Your task to perform on an android device: turn on priority inbox in the gmail app Image 0: 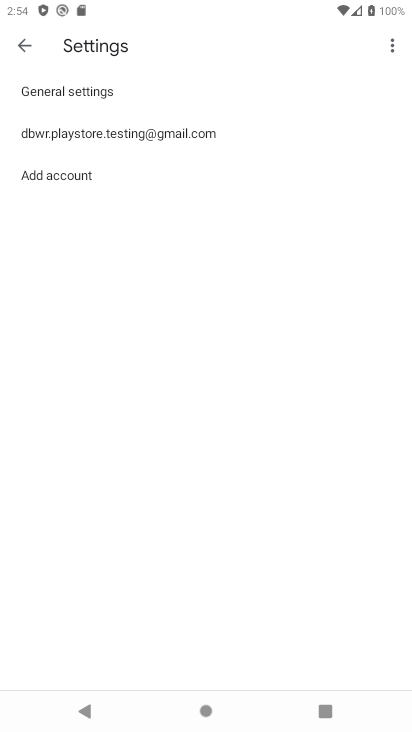
Step 0: click (16, 33)
Your task to perform on an android device: turn on priority inbox in the gmail app Image 1: 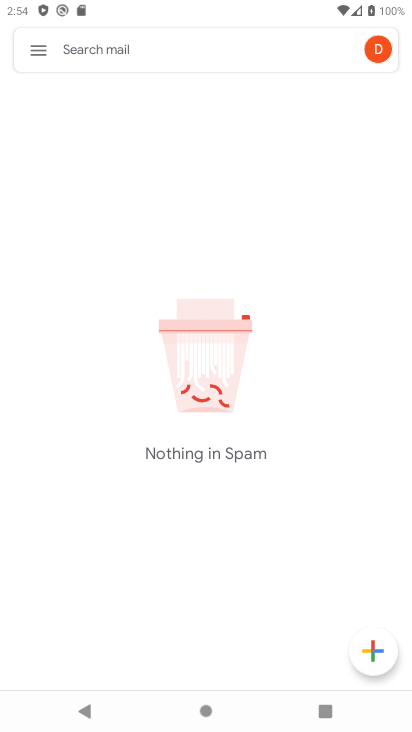
Step 1: press back button
Your task to perform on an android device: turn on priority inbox in the gmail app Image 2: 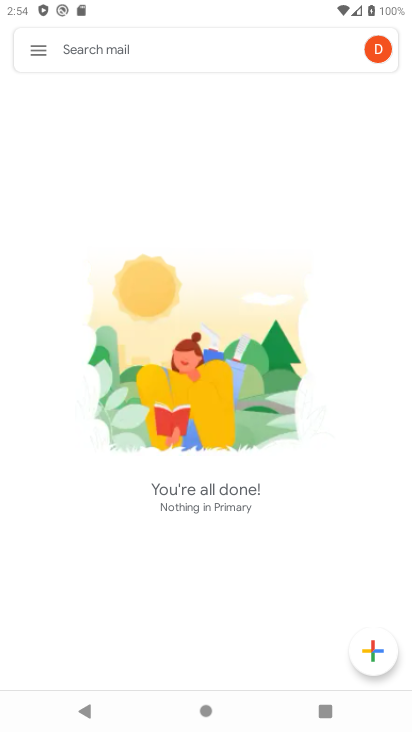
Step 2: press home button
Your task to perform on an android device: turn on priority inbox in the gmail app Image 3: 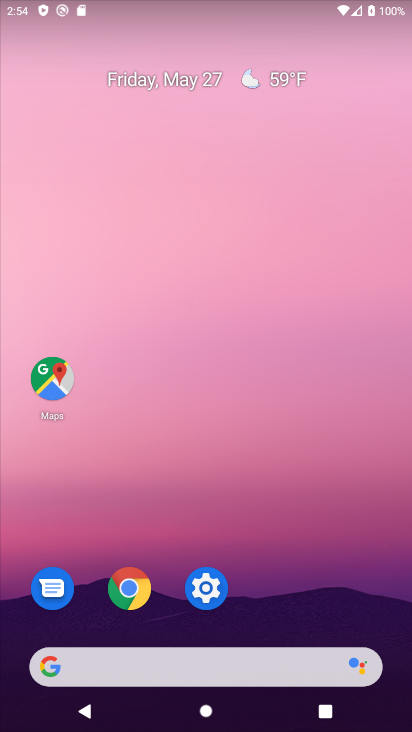
Step 3: drag from (156, 223) to (99, 30)
Your task to perform on an android device: turn on priority inbox in the gmail app Image 4: 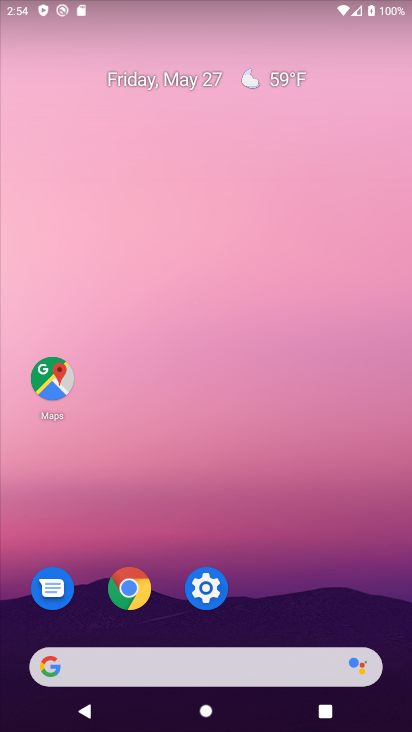
Step 4: drag from (275, 624) to (182, 4)
Your task to perform on an android device: turn on priority inbox in the gmail app Image 5: 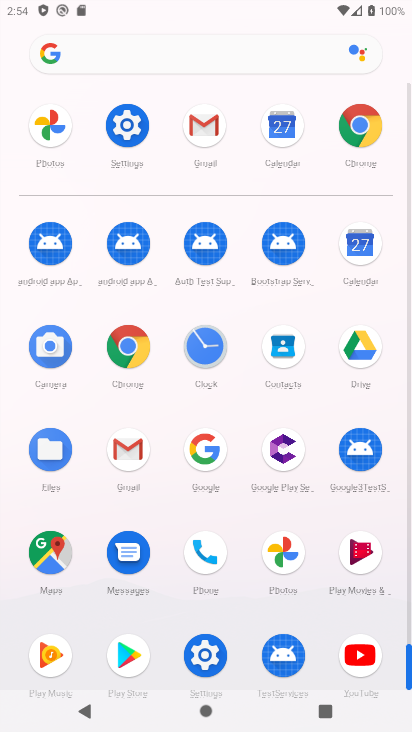
Step 5: drag from (241, 563) to (142, 20)
Your task to perform on an android device: turn on priority inbox in the gmail app Image 6: 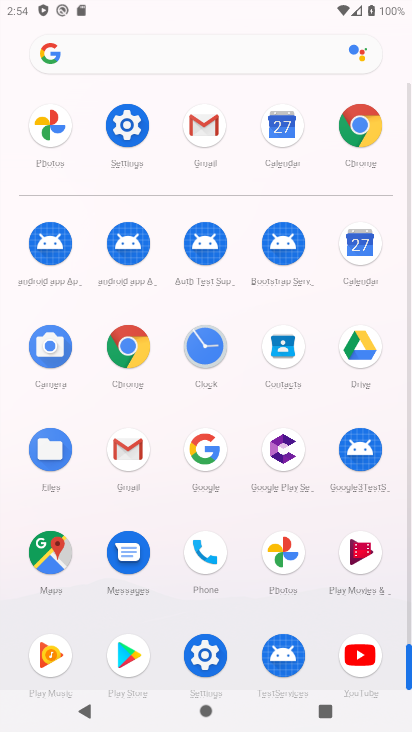
Step 6: click (136, 453)
Your task to perform on an android device: turn on priority inbox in the gmail app Image 7: 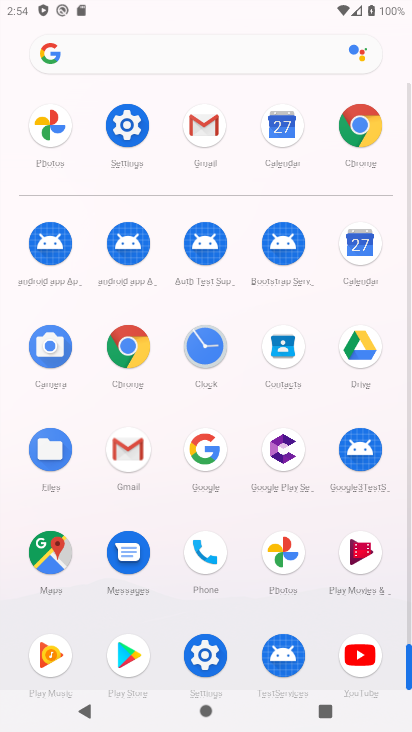
Step 7: click (136, 453)
Your task to perform on an android device: turn on priority inbox in the gmail app Image 8: 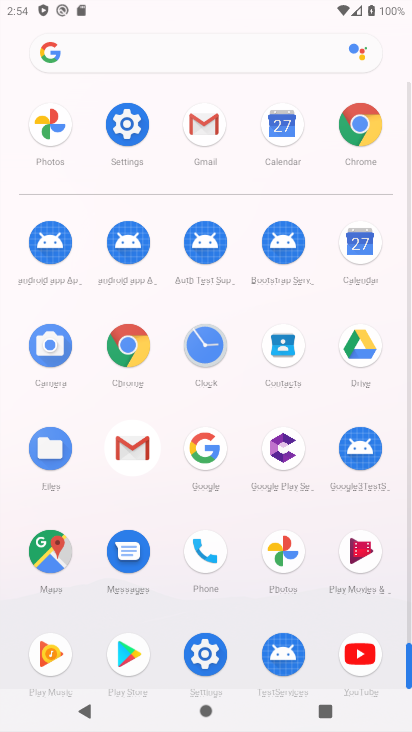
Step 8: click (136, 453)
Your task to perform on an android device: turn on priority inbox in the gmail app Image 9: 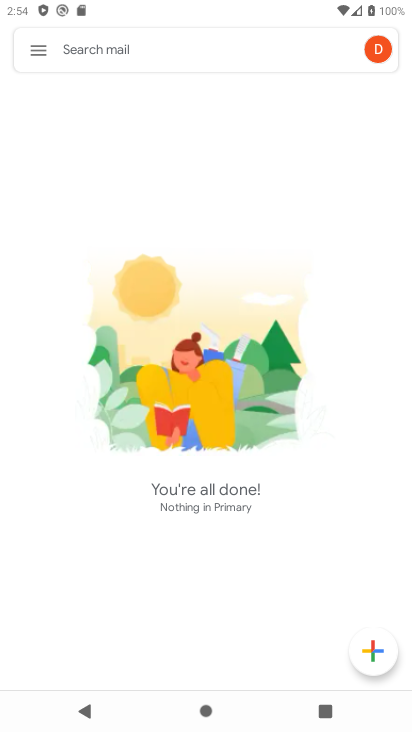
Step 9: click (137, 453)
Your task to perform on an android device: turn on priority inbox in the gmail app Image 10: 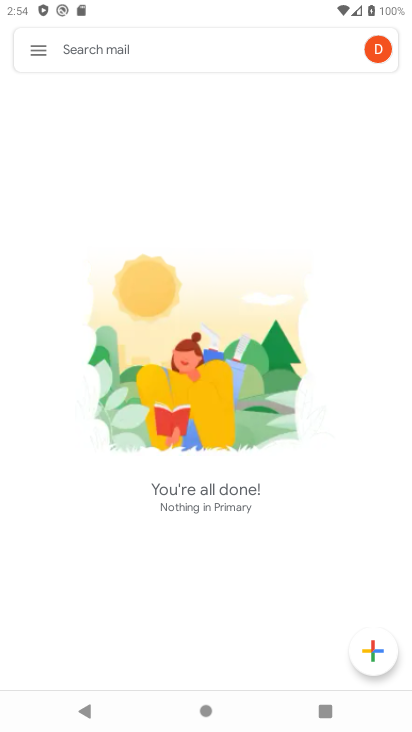
Step 10: click (41, 59)
Your task to perform on an android device: turn on priority inbox in the gmail app Image 11: 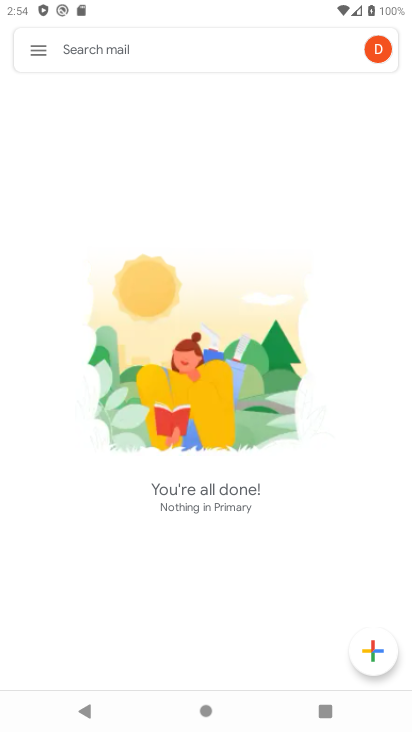
Step 11: click (41, 59)
Your task to perform on an android device: turn on priority inbox in the gmail app Image 12: 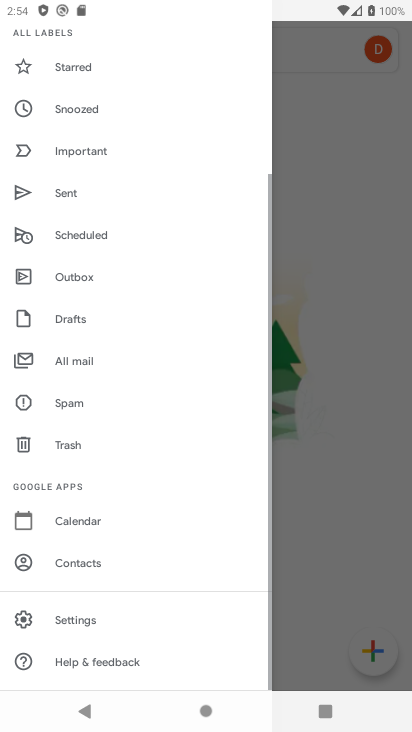
Step 12: click (42, 58)
Your task to perform on an android device: turn on priority inbox in the gmail app Image 13: 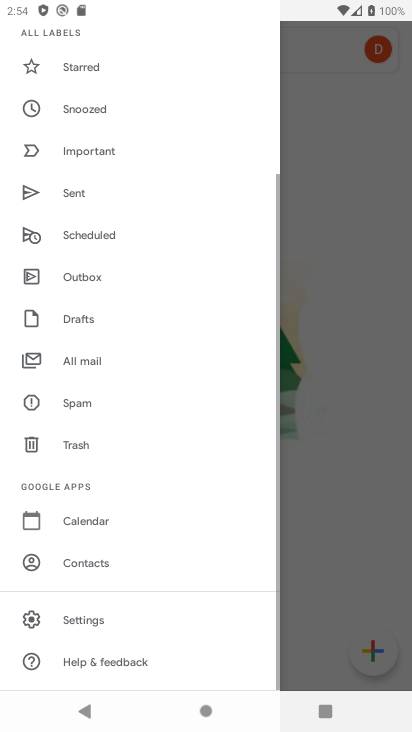
Step 13: click (43, 55)
Your task to perform on an android device: turn on priority inbox in the gmail app Image 14: 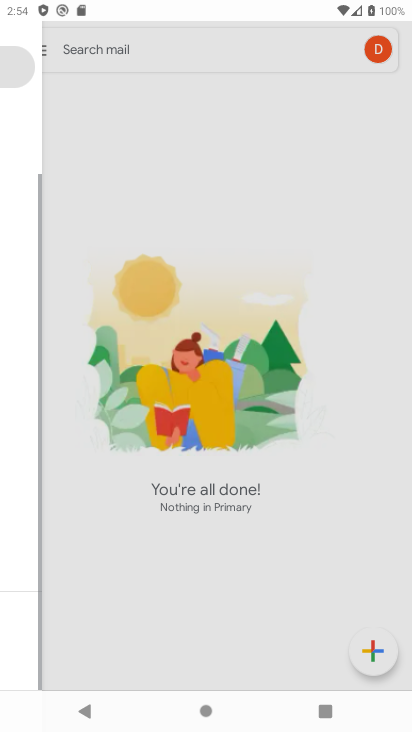
Step 14: click (44, 55)
Your task to perform on an android device: turn on priority inbox in the gmail app Image 15: 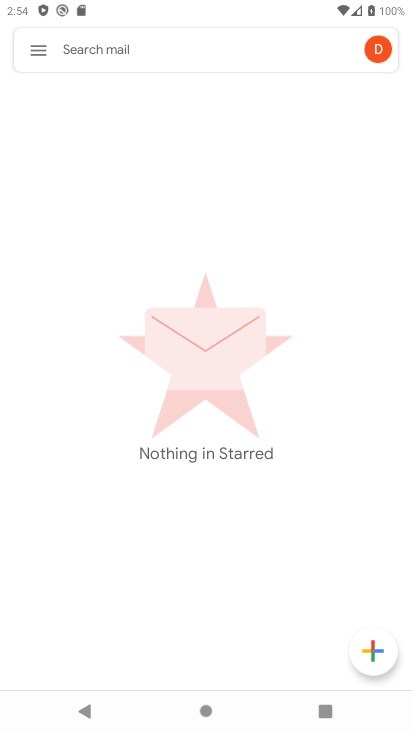
Step 15: click (48, 51)
Your task to perform on an android device: turn on priority inbox in the gmail app Image 16: 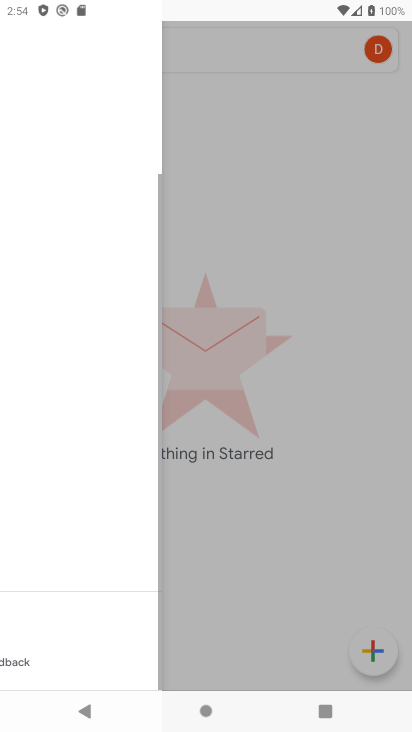
Step 16: click (48, 51)
Your task to perform on an android device: turn on priority inbox in the gmail app Image 17: 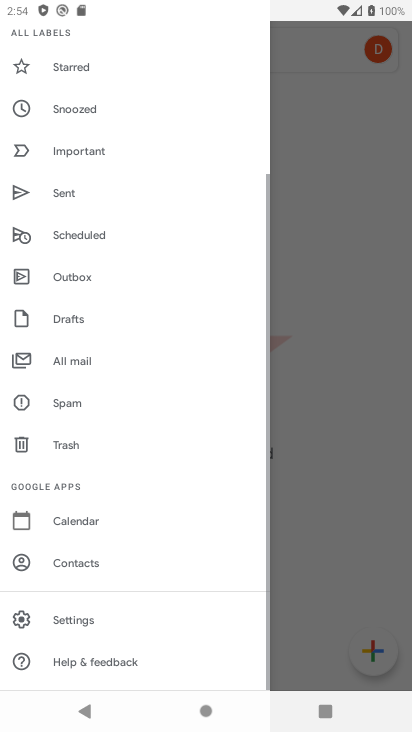
Step 17: click (49, 53)
Your task to perform on an android device: turn on priority inbox in the gmail app Image 18: 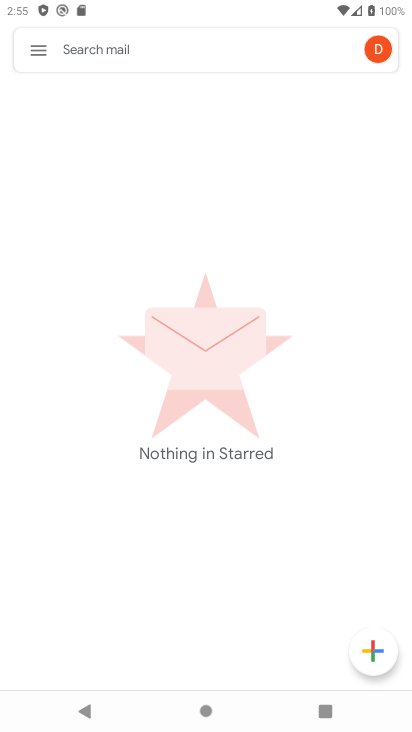
Step 18: click (38, 46)
Your task to perform on an android device: turn on priority inbox in the gmail app Image 19: 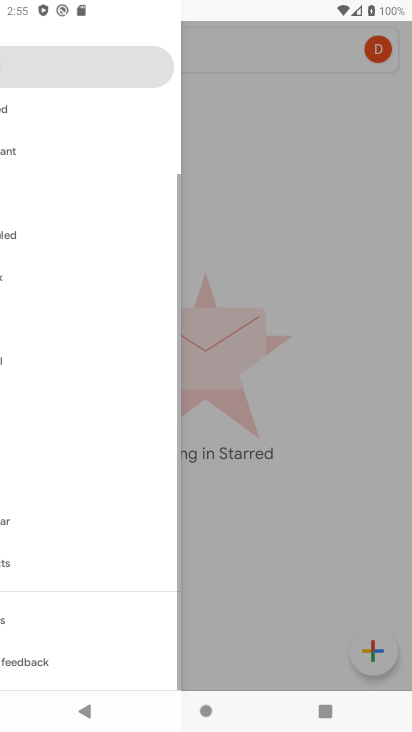
Step 19: click (39, 52)
Your task to perform on an android device: turn on priority inbox in the gmail app Image 20: 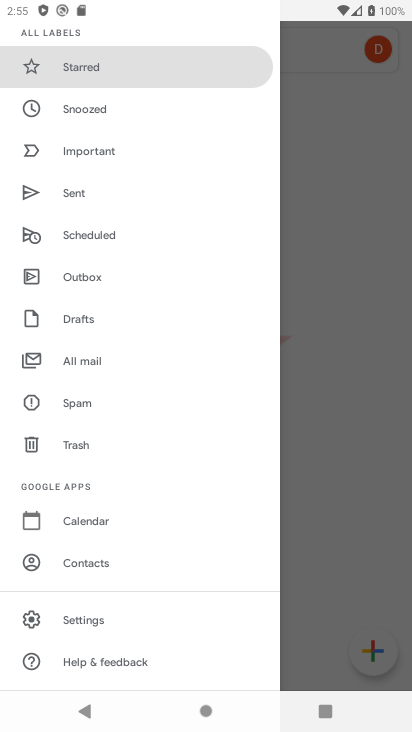
Step 20: click (89, 616)
Your task to perform on an android device: turn on priority inbox in the gmail app Image 21: 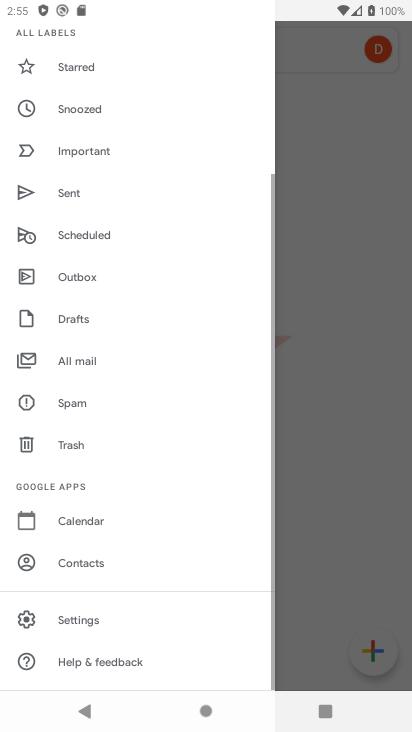
Step 21: click (89, 617)
Your task to perform on an android device: turn on priority inbox in the gmail app Image 22: 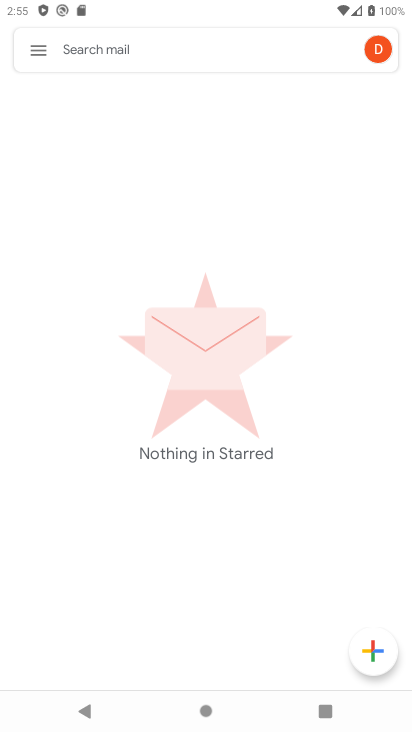
Step 22: click (89, 617)
Your task to perform on an android device: turn on priority inbox in the gmail app Image 23: 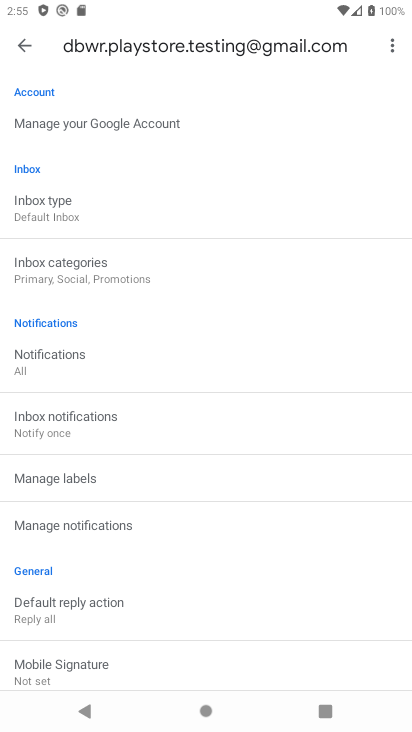
Step 23: click (35, 208)
Your task to perform on an android device: turn on priority inbox in the gmail app Image 24: 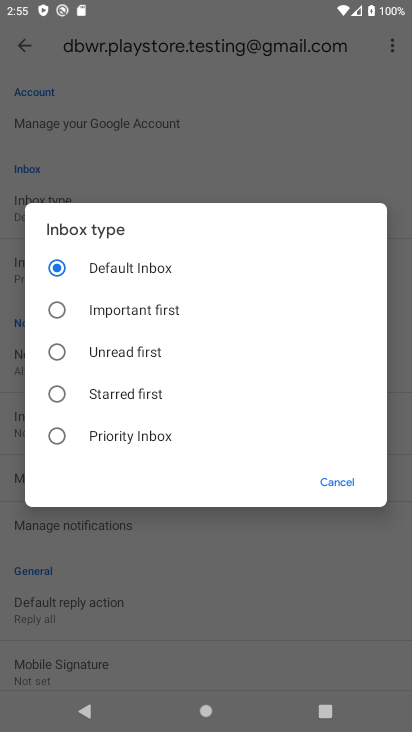
Step 24: click (52, 428)
Your task to perform on an android device: turn on priority inbox in the gmail app Image 25: 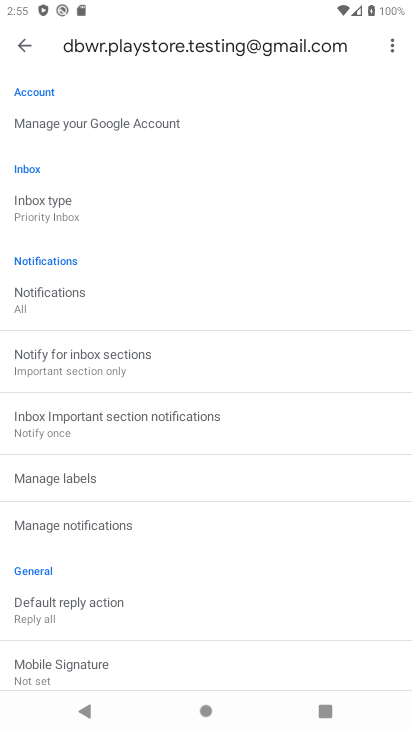
Step 25: task complete